Your task to perform on an android device: Open Maps and search for coffee Image 0: 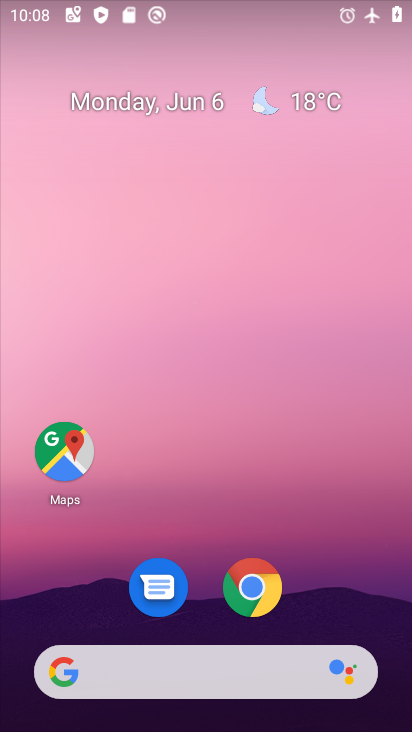
Step 0: click (59, 448)
Your task to perform on an android device: Open Maps and search for coffee Image 1: 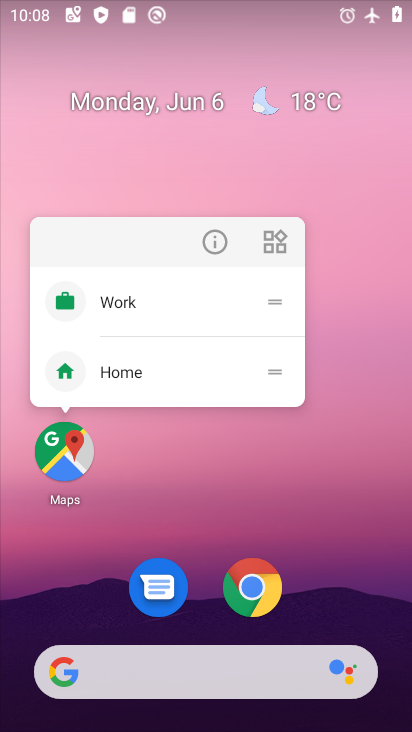
Step 1: click (65, 460)
Your task to perform on an android device: Open Maps and search for coffee Image 2: 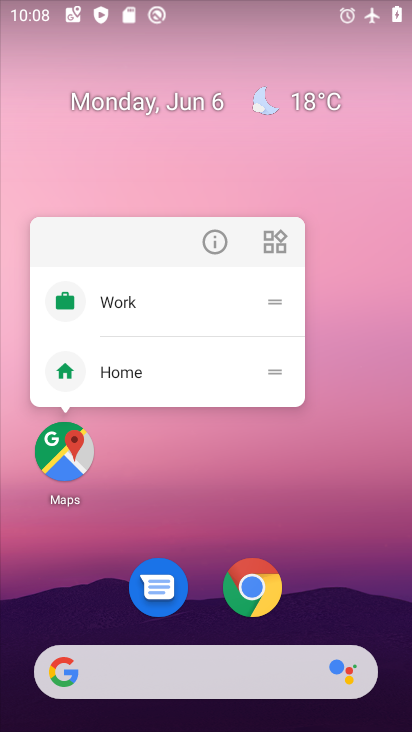
Step 2: click (63, 458)
Your task to perform on an android device: Open Maps and search for coffee Image 3: 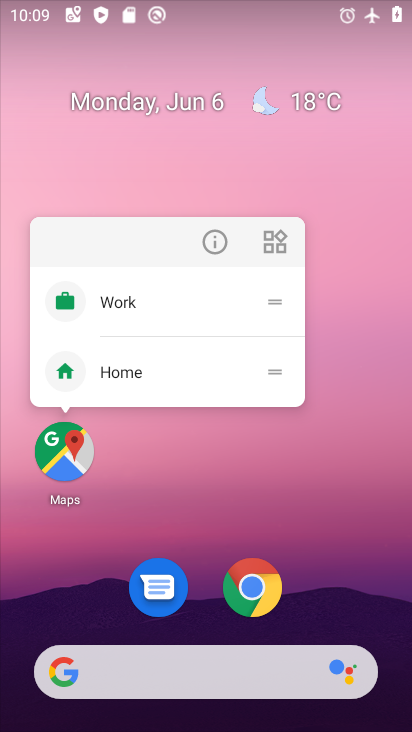
Step 3: click (276, 479)
Your task to perform on an android device: Open Maps and search for coffee Image 4: 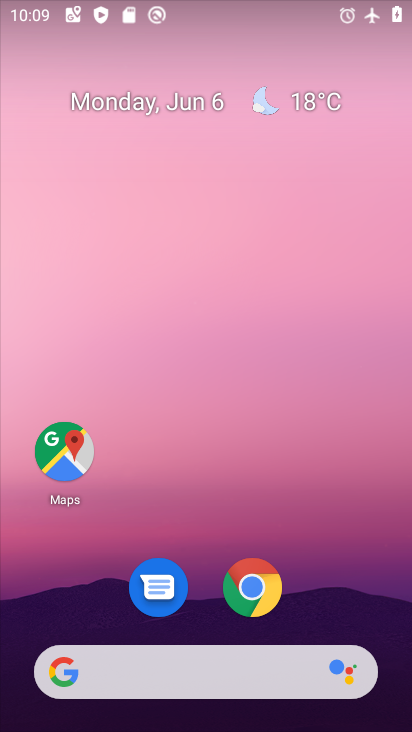
Step 4: drag from (313, 532) to (293, 0)
Your task to perform on an android device: Open Maps and search for coffee Image 5: 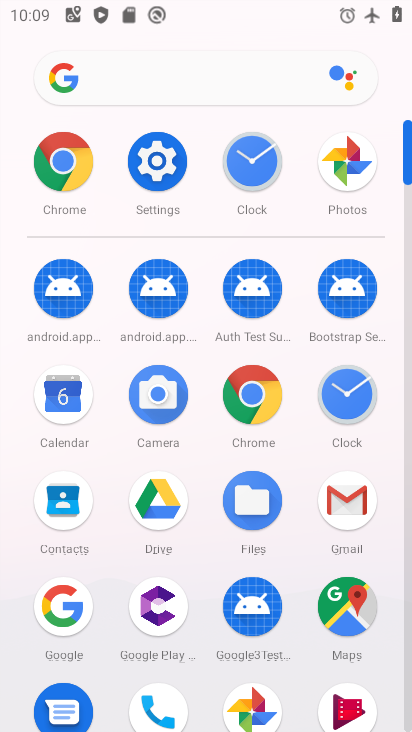
Step 5: click (356, 617)
Your task to perform on an android device: Open Maps and search for coffee Image 6: 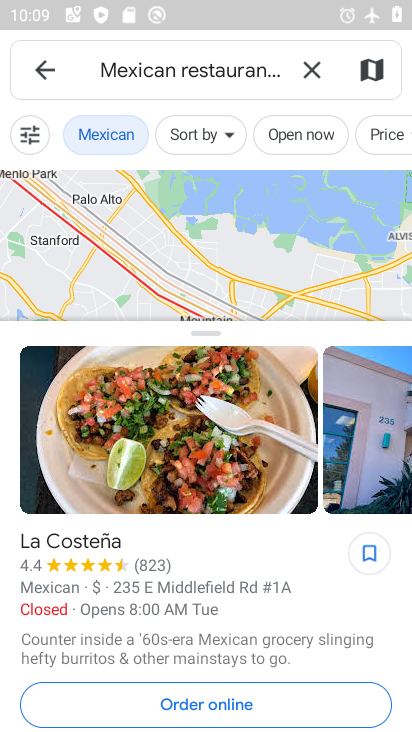
Step 6: click (213, 72)
Your task to perform on an android device: Open Maps and search for coffee Image 7: 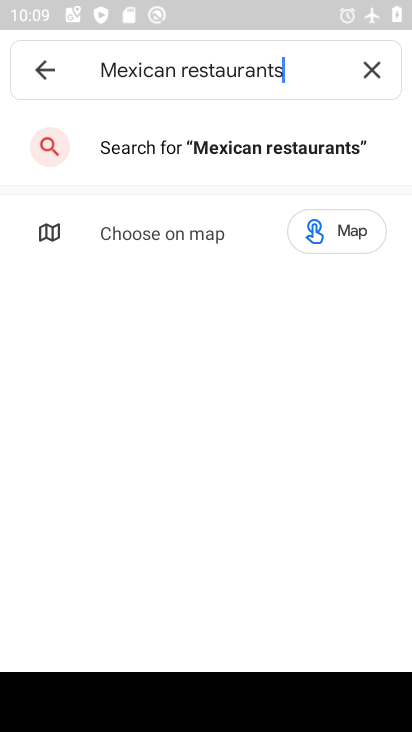
Step 7: click (381, 66)
Your task to perform on an android device: Open Maps and search for coffee Image 8: 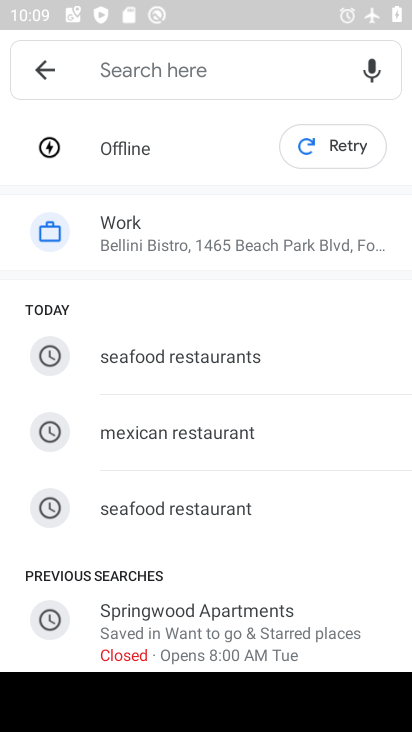
Step 8: type "coffee"
Your task to perform on an android device: Open Maps and search for coffee Image 9: 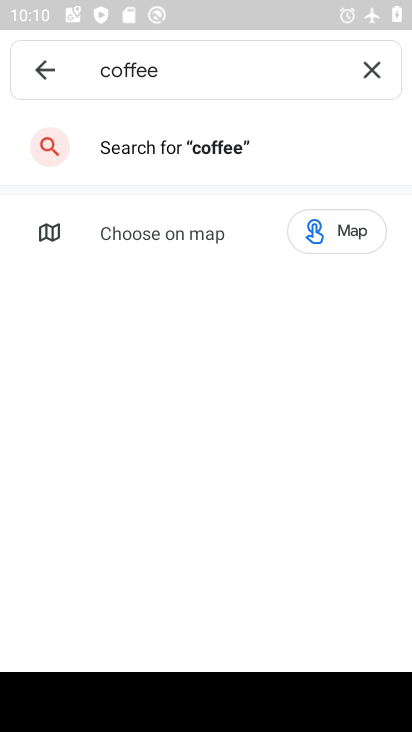
Step 9: click (235, 157)
Your task to perform on an android device: Open Maps and search for coffee Image 10: 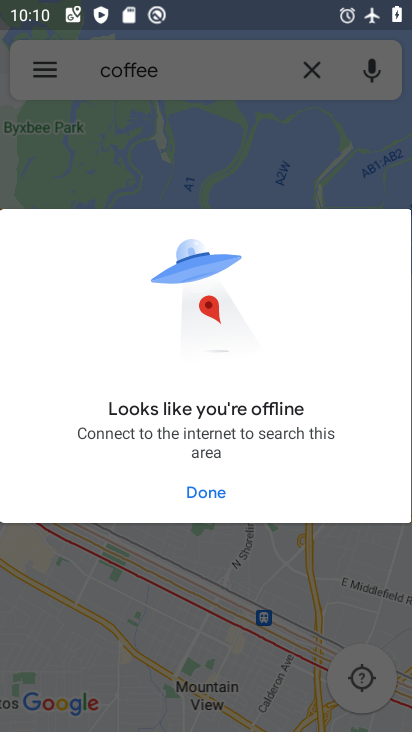
Step 10: task complete